Your task to perform on an android device: turn off location Image 0: 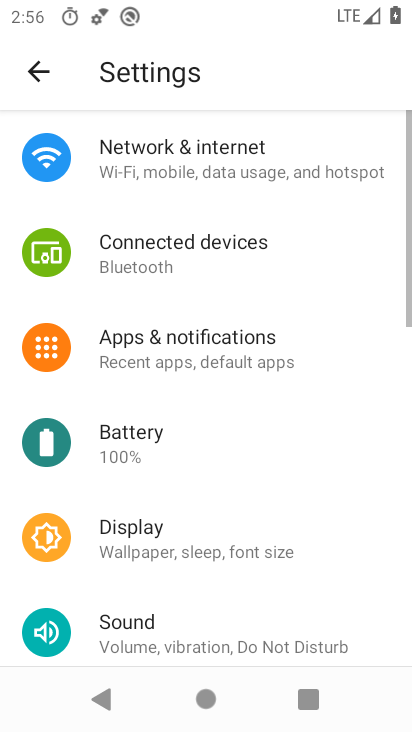
Step 0: press home button
Your task to perform on an android device: turn off location Image 1: 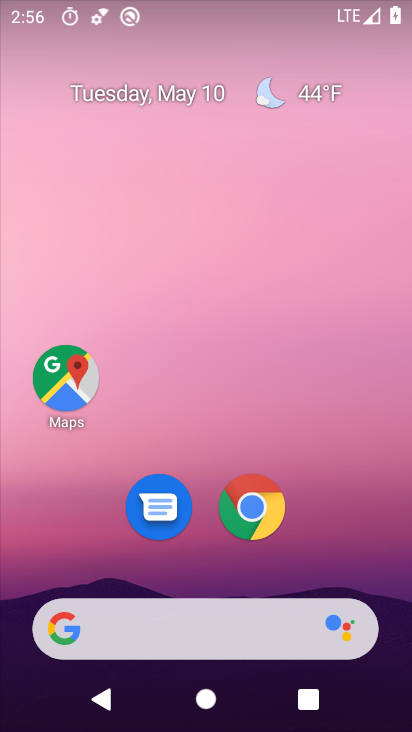
Step 1: drag from (189, 597) to (162, 274)
Your task to perform on an android device: turn off location Image 2: 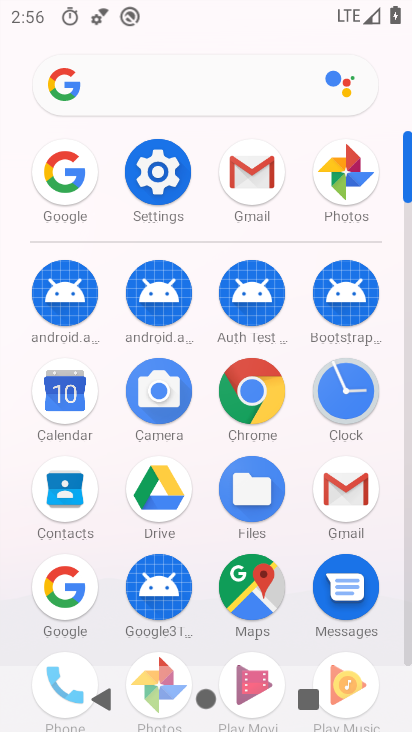
Step 2: click (146, 174)
Your task to perform on an android device: turn off location Image 3: 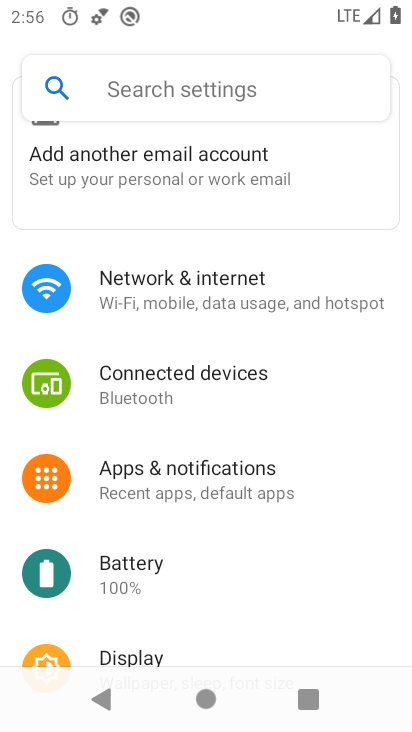
Step 3: drag from (226, 609) to (196, 264)
Your task to perform on an android device: turn off location Image 4: 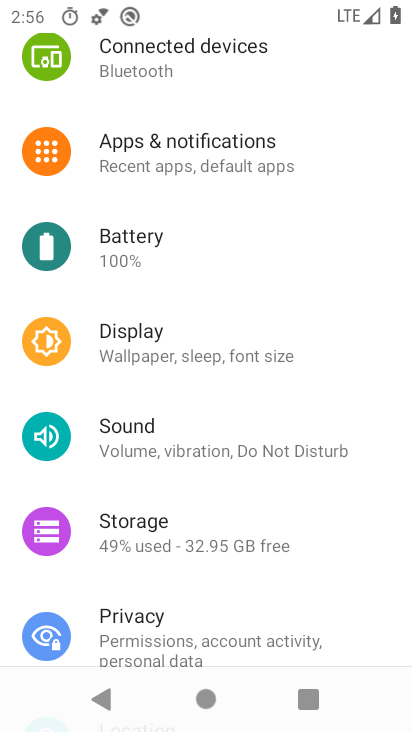
Step 4: drag from (179, 647) to (165, 412)
Your task to perform on an android device: turn off location Image 5: 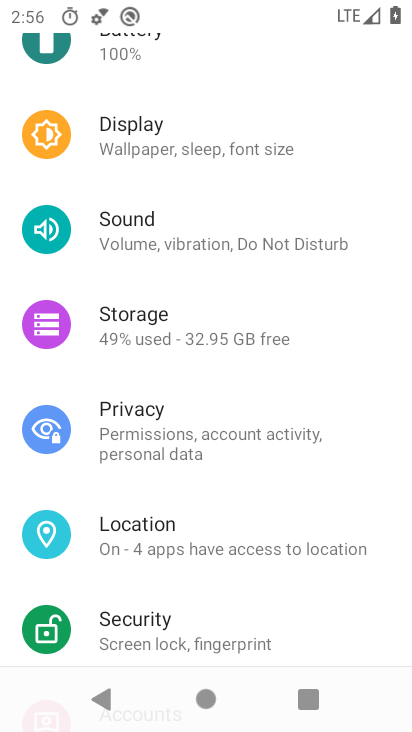
Step 5: click (152, 515)
Your task to perform on an android device: turn off location Image 6: 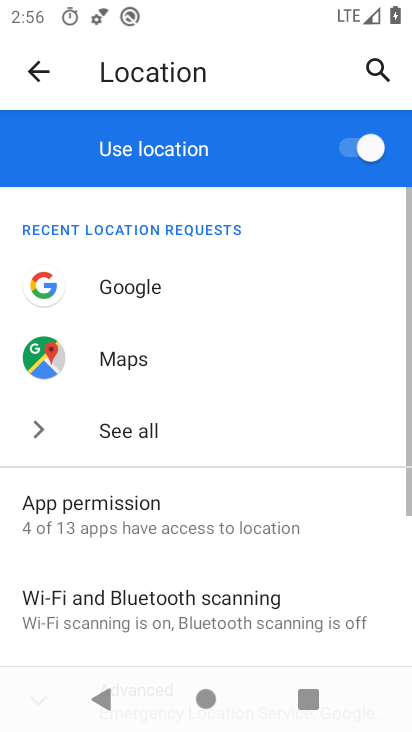
Step 6: click (354, 149)
Your task to perform on an android device: turn off location Image 7: 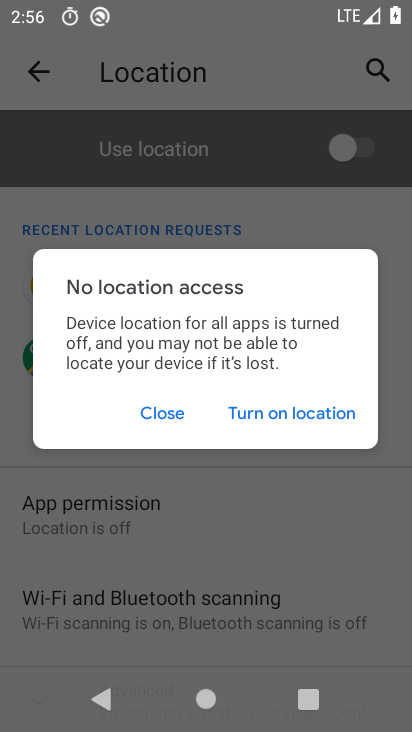
Step 7: task complete